Your task to perform on an android device: read, delete, or share a saved page in the chrome app Image 0: 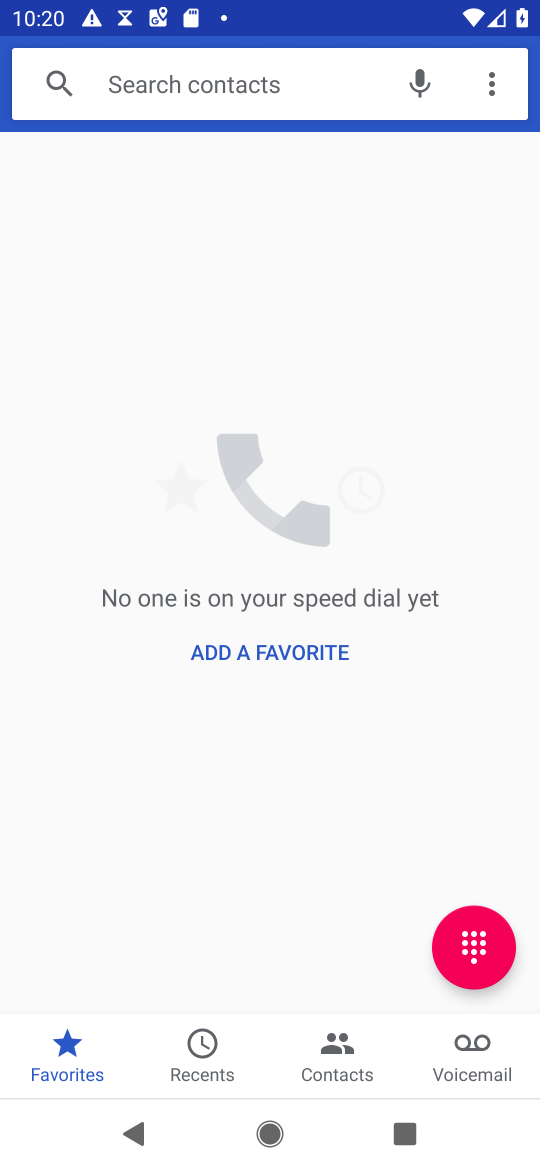
Step 0: press home button
Your task to perform on an android device: read, delete, or share a saved page in the chrome app Image 1: 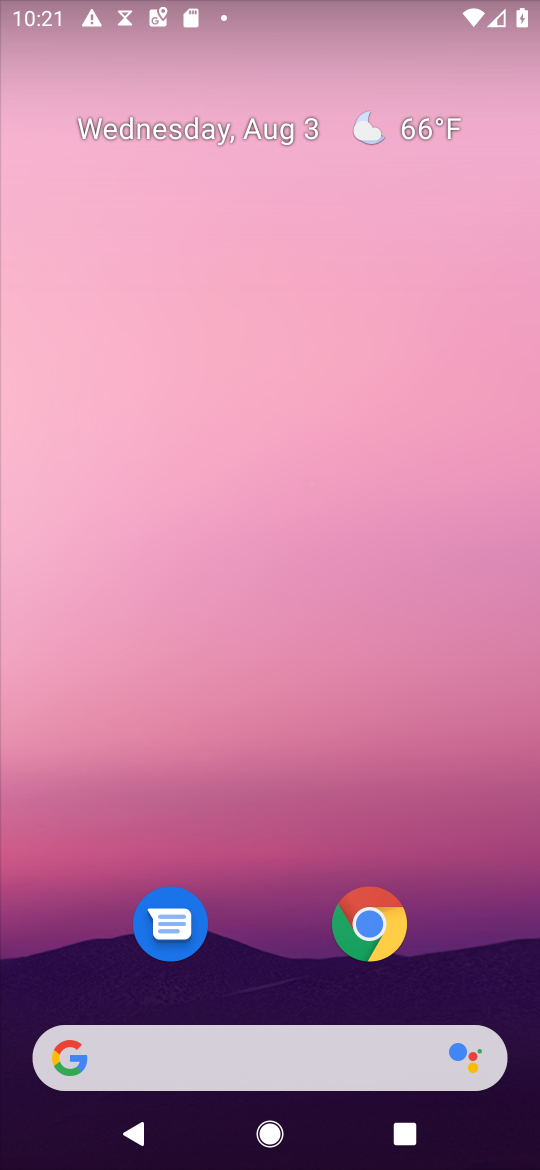
Step 1: click (366, 916)
Your task to perform on an android device: read, delete, or share a saved page in the chrome app Image 2: 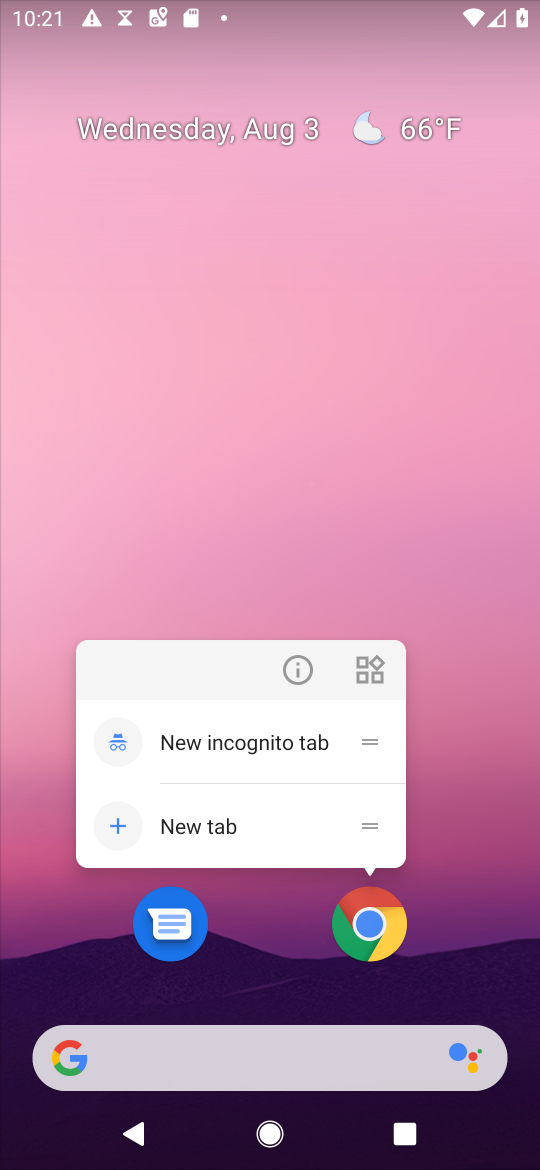
Step 2: click (366, 916)
Your task to perform on an android device: read, delete, or share a saved page in the chrome app Image 3: 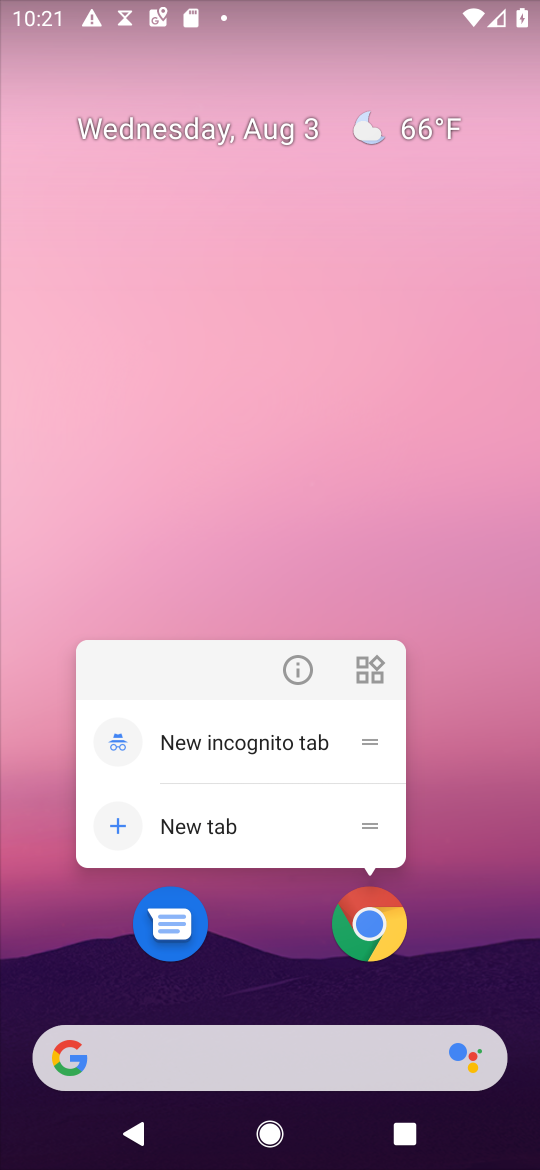
Step 3: click (435, 941)
Your task to perform on an android device: read, delete, or share a saved page in the chrome app Image 4: 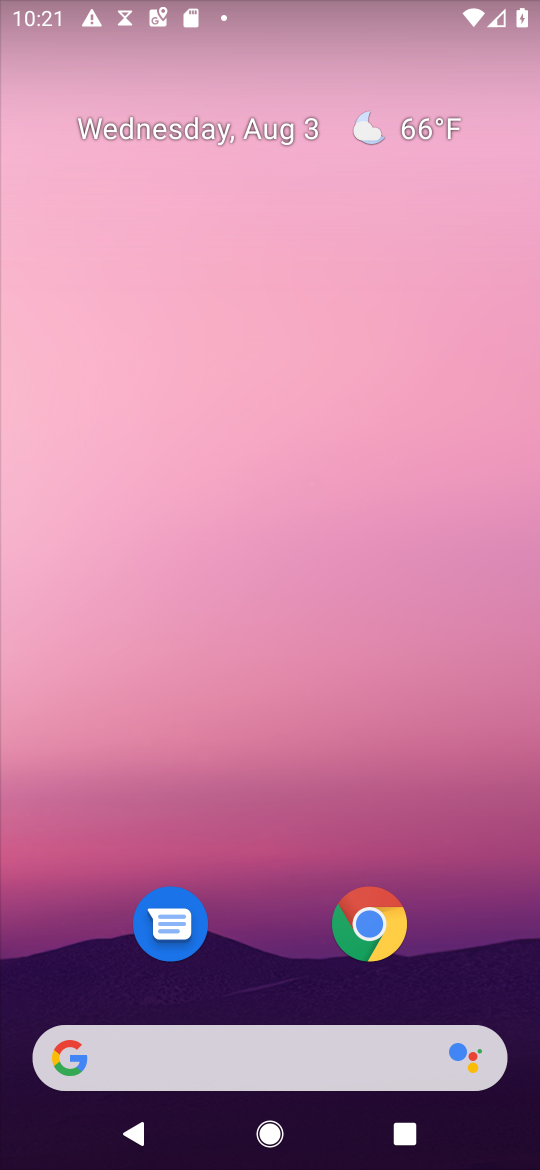
Step 4: drag from (446, 998) to (537, 95)
Your task to perform on an android device: read, delete, or share a saved page in the chrome app Image 5: 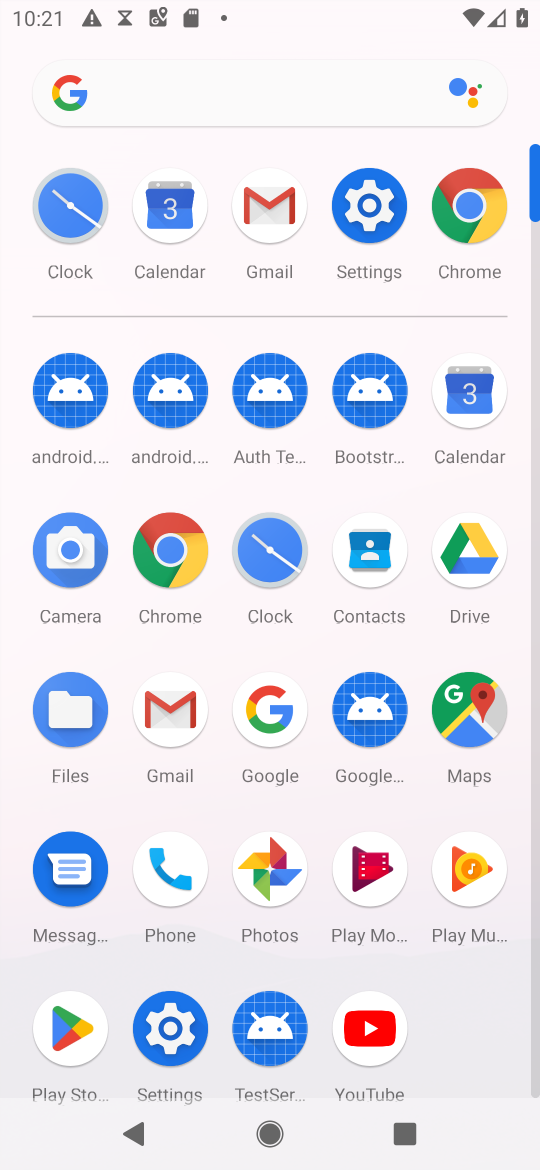
Step 5: click (165, 536)
Your task to perform on an android device: read, delete, or share a saved page in the chrome app Image 6: 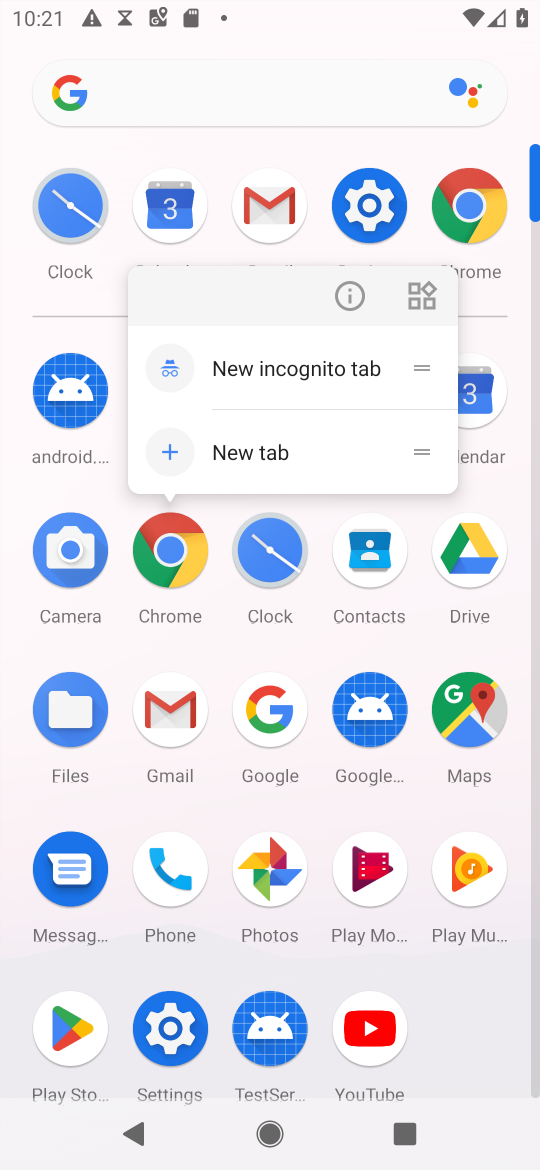
Step 6: click (162, 538)
Your task to perform on an android device: read, delete, or share a saved page in the chrome app Image 7: 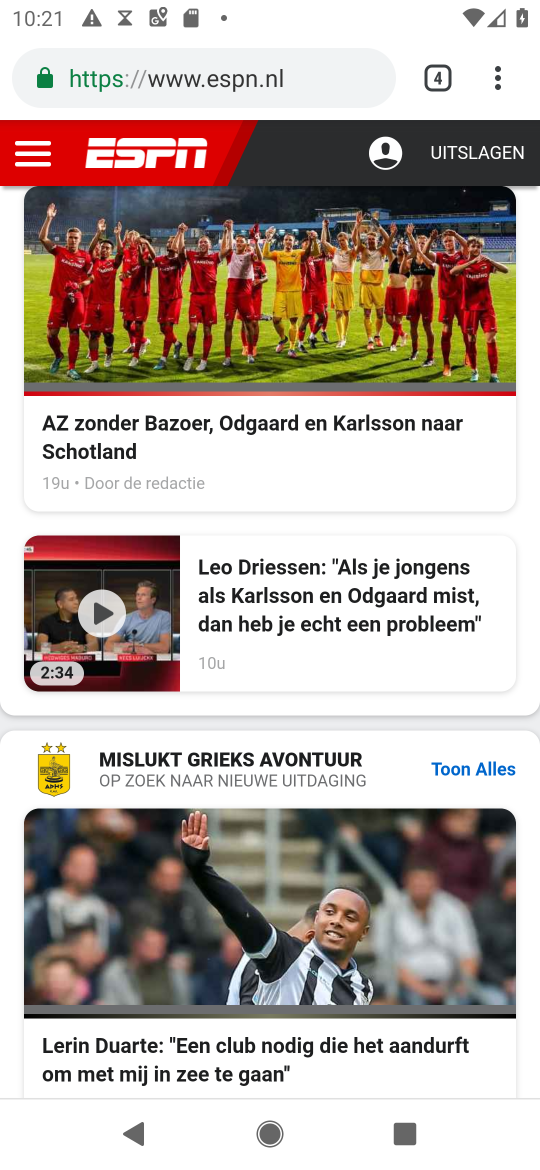
Step 7: click (495, 71)
Your task to perform on an android device: read, delete, or share a saved page in the chrome app Image 8: 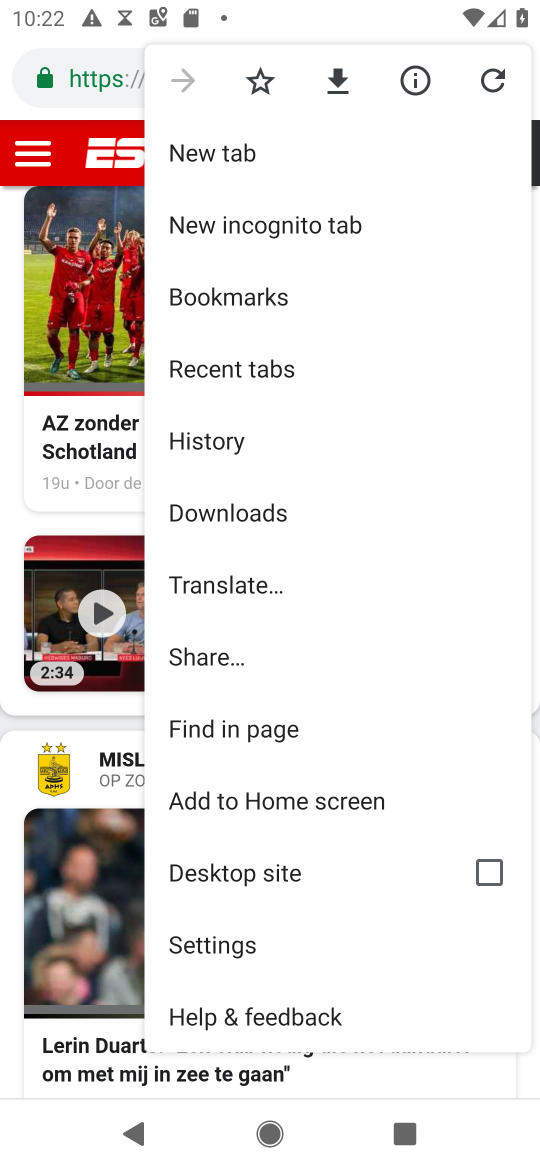
Step 8: click (295, 508)
Your task to perform on an android device: read, delete, or share a saved page in the chrome app Image 9: 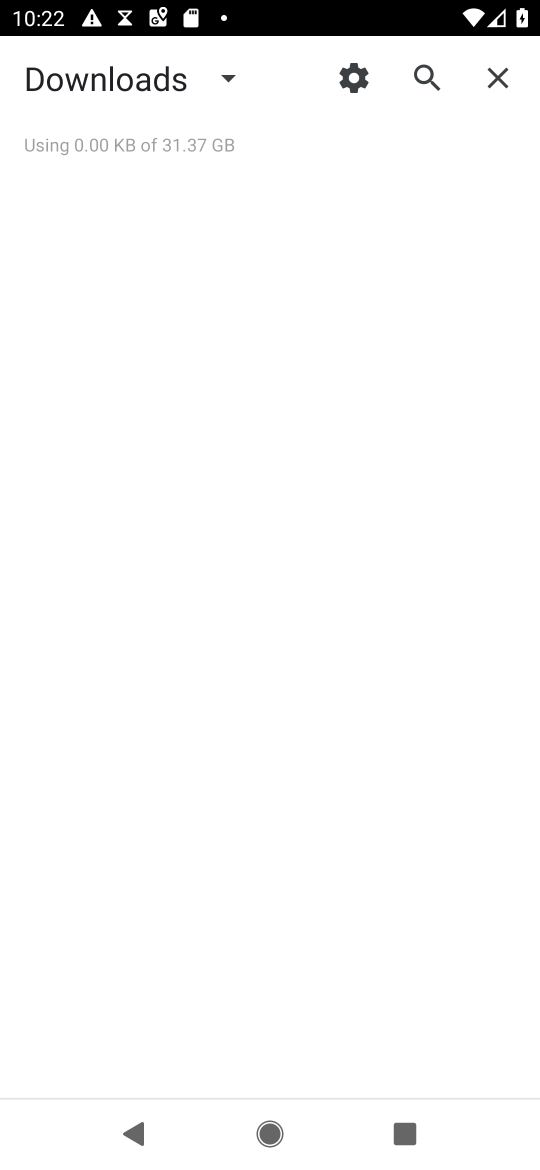
Step 9: task complete